Your task to perform on an android device: Open location settings Image 0: 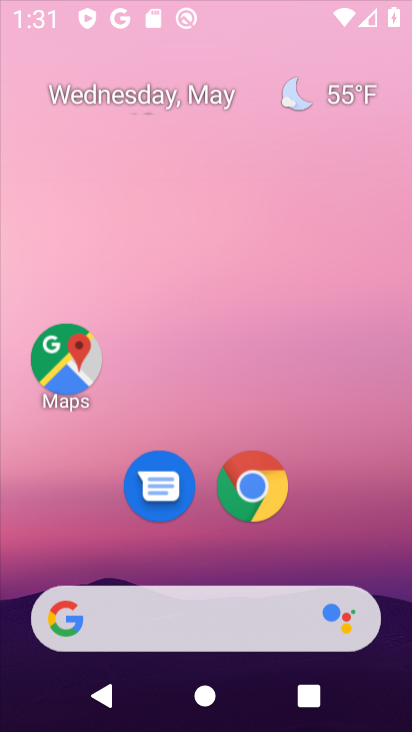
Step 0: press home button
Your task to perform on an android device: Open location settings Image 1: 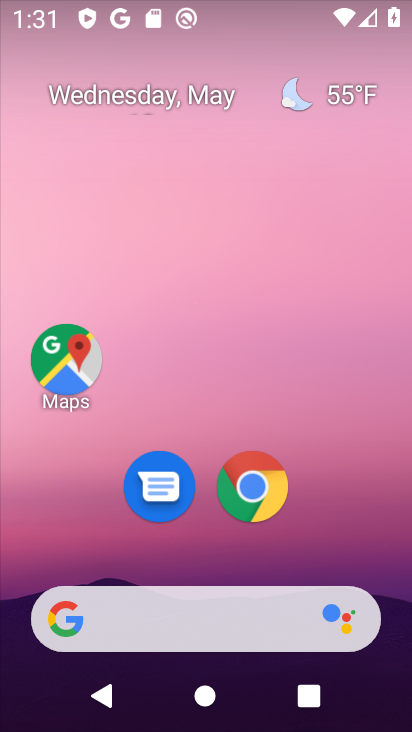
Step 1: click (69, 356)
Your task to perform on an android device: Open location settings Image 2: 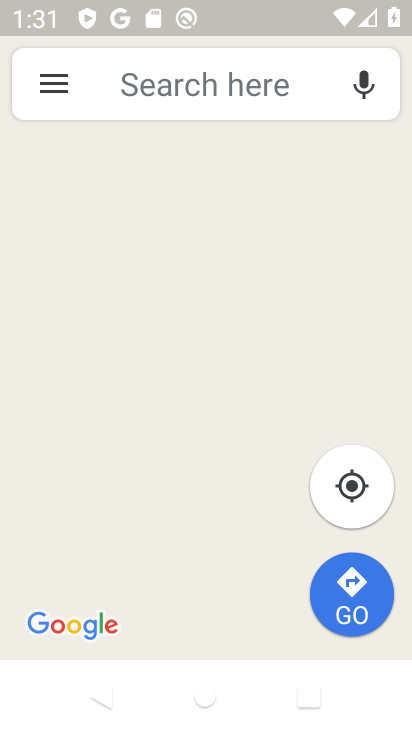
Step 2: press home button
Your task to perform on an android device: Open location settings Image 3: 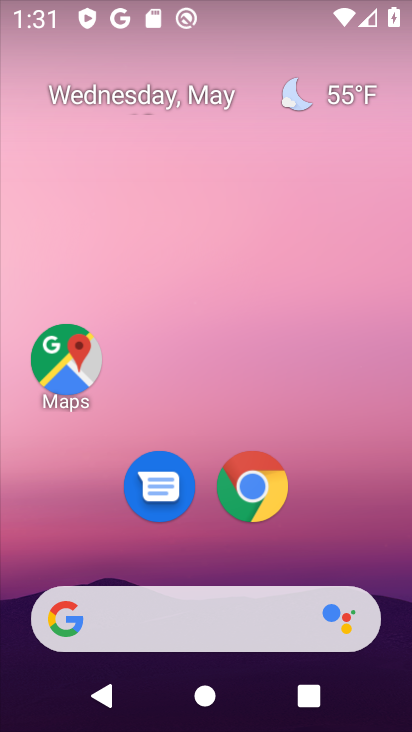
Step 3: drag from (254, 568) to (287, 95)
Your task to perform on an android device: Open location settings Image 4: 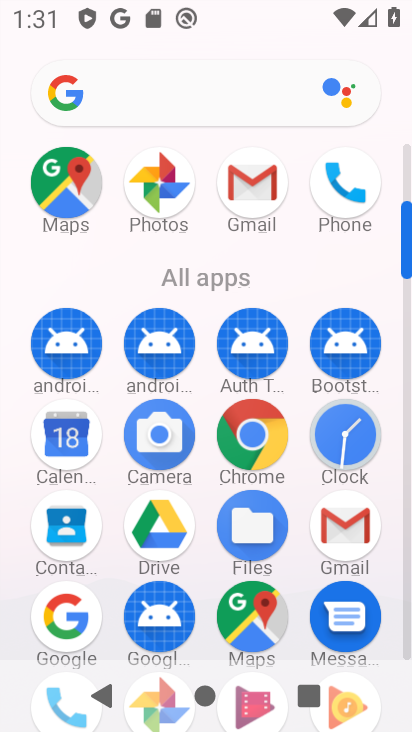
Step 4: drag from (311, 446) to (376, 127)
Your task to perform on an android device: Open location settings Image 5: 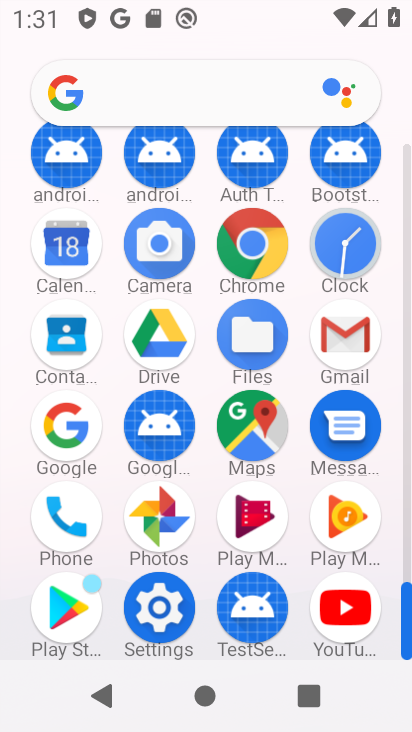
Step 5: click (162, 586)
Your task to perform on an android device: Open location settings Image 6: 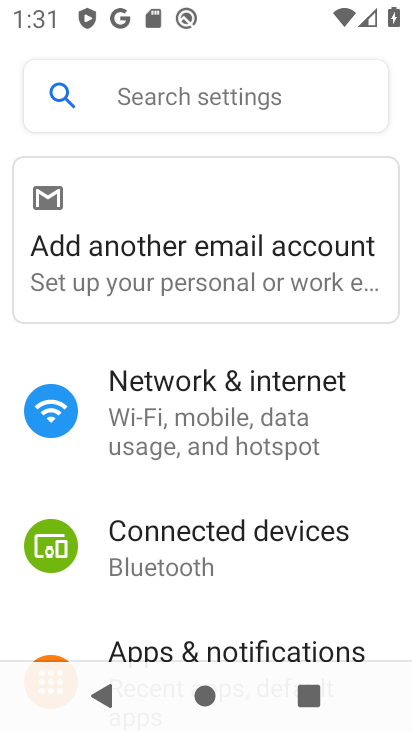
Step 6: drag from (162, 586) to (263, 127)
Your task to perform on an android device: Open location settings Image 7: 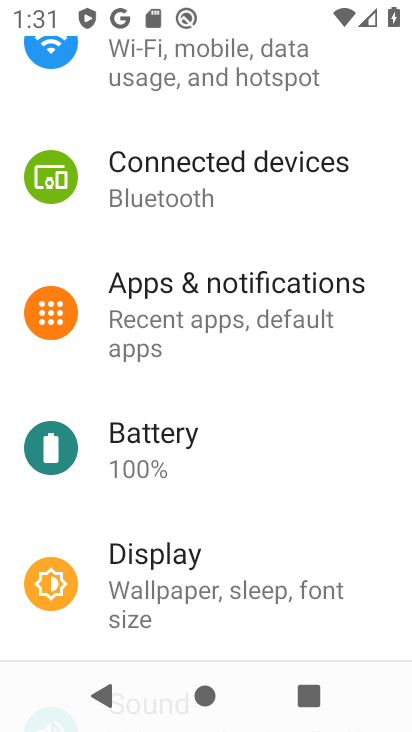
Step 7: drag from (202, 521) to (284, 202)
Your task to perform on an android device: Open location settings Image 8: 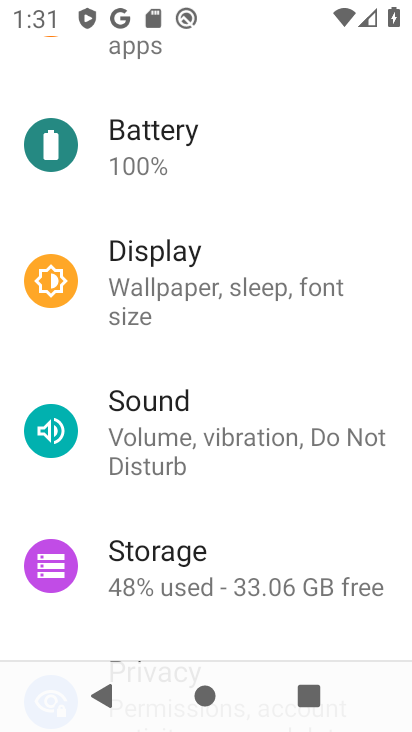
Step 8: drag from (193, 563) to (293, 219)
Your task to perform on an android device: Open location settings Image 9: 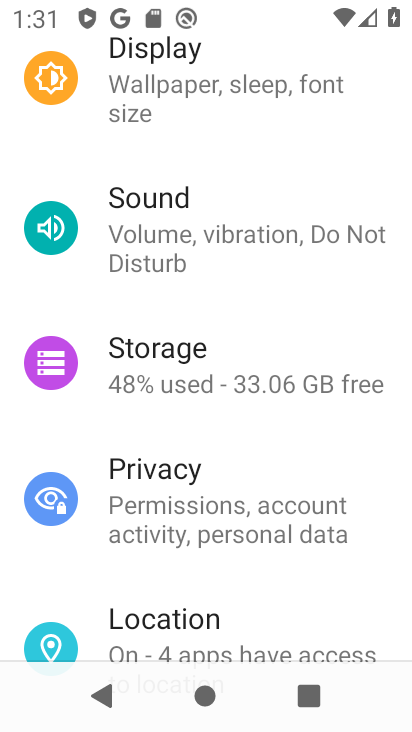
Step 9: click (191, 615)
Your task to perform on an android device: Open location settings Image 10: 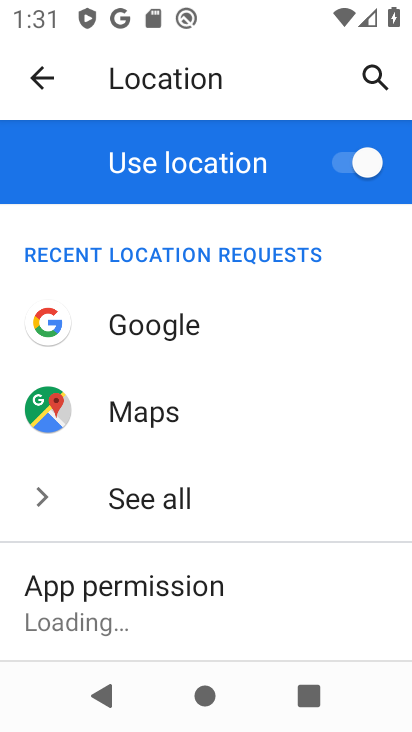
Step 10: task complete